Your task to perform on an android device: install app "Google Home" Image 0: 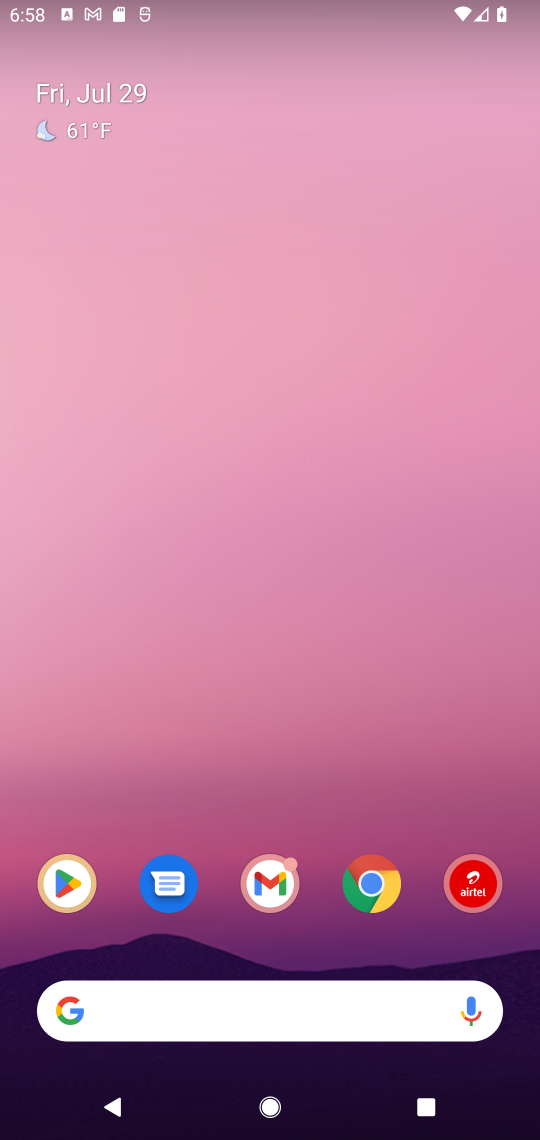
Step 0: click (62, 890)
Your task to perform on an android device: install app "Google Home" Image 1: 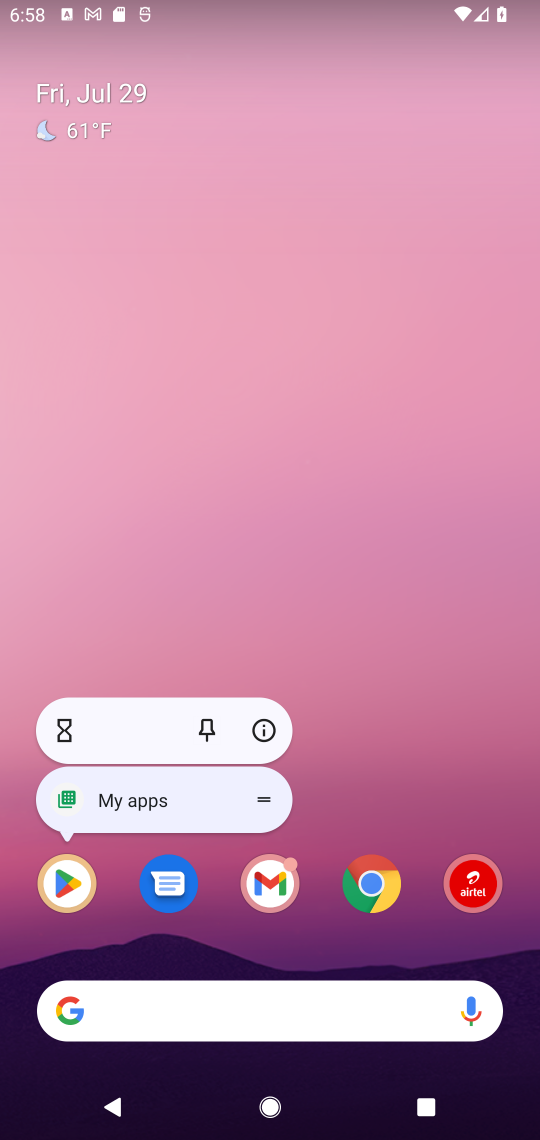
Step 1: click (80, 896)
Your task to perform on an android device: install app "Google Home" Image 2: 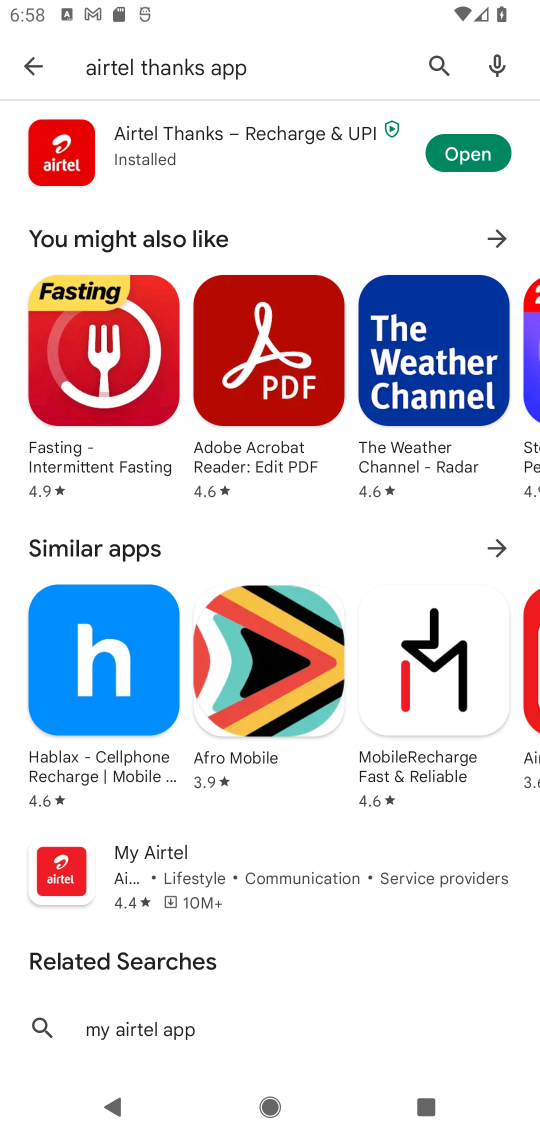
Step 2: click (430, 67)
Your task to perform on an android device: install app "Google Home" Image 3: 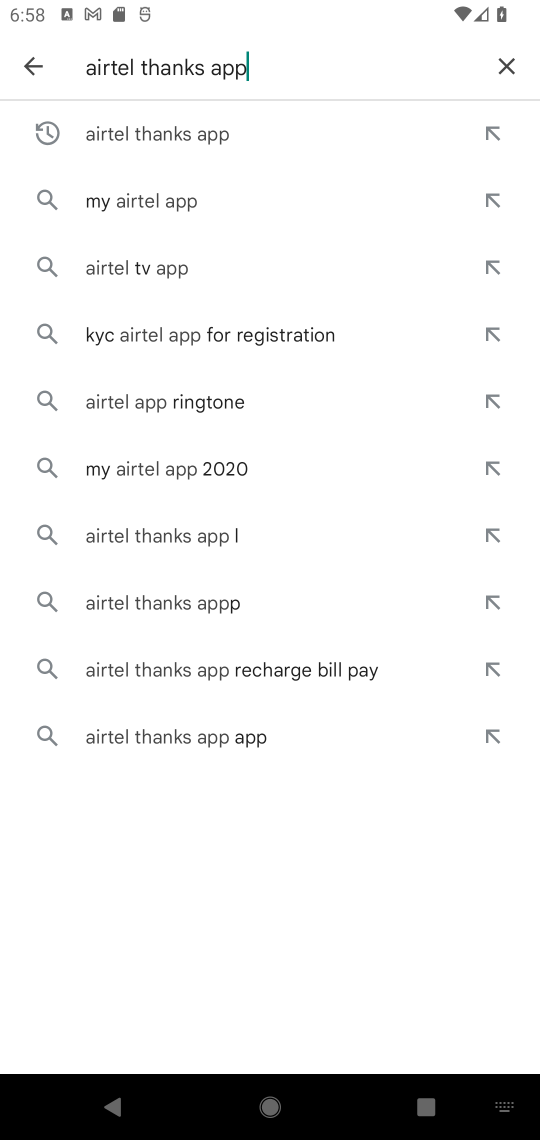
Step 3: click (494, 59)
Your task to perform on an android device: install app "Google Home" Image 4: 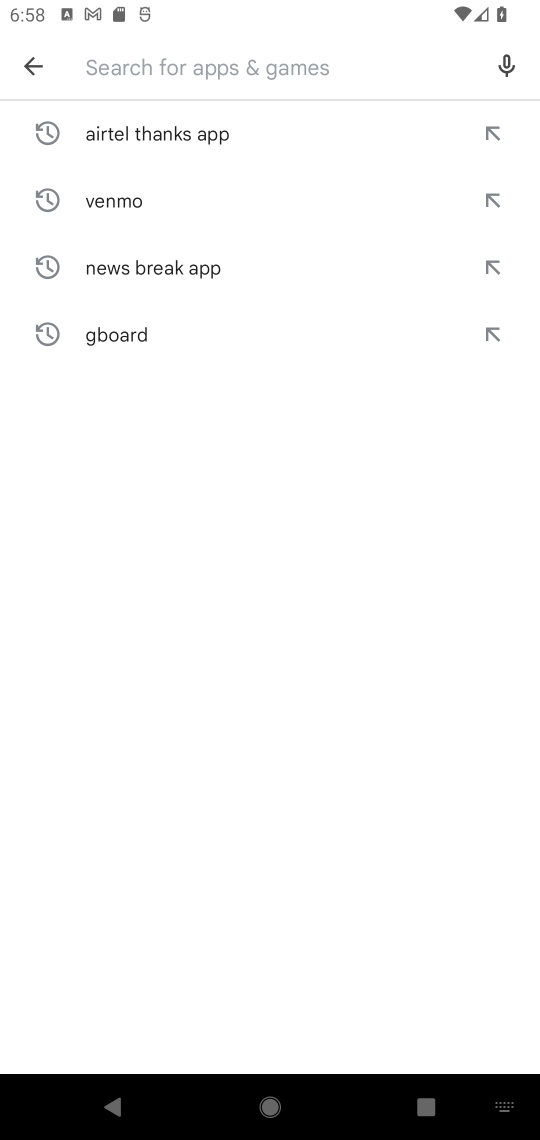
Step 4: click (241, 58)
Your task to perform on an android device: install app "Google Home" Image 5: 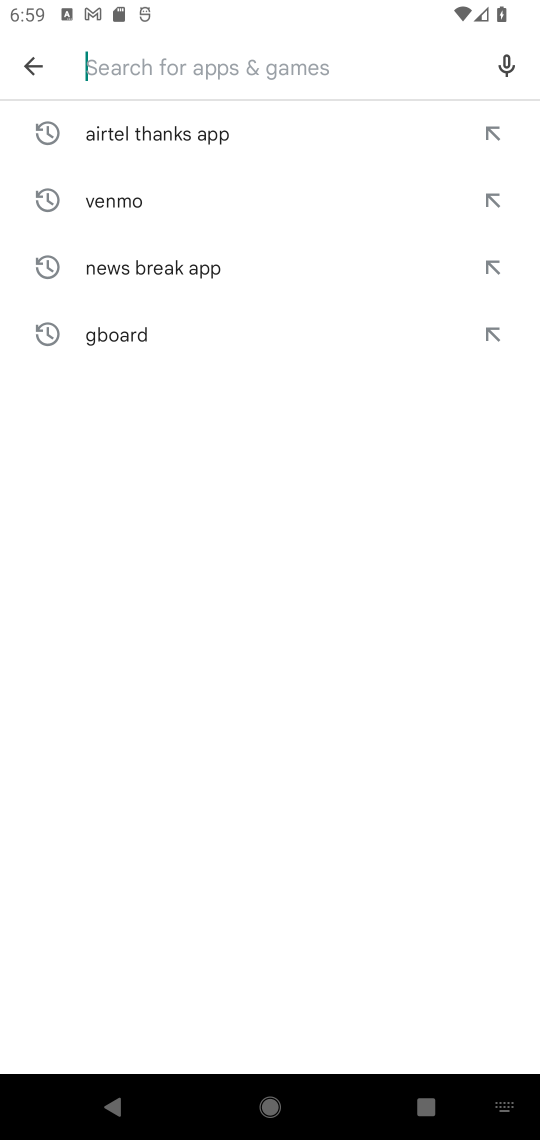
Step 5: type "google home"
Your task to perform on an android device: install app "Google Home" Image 6: 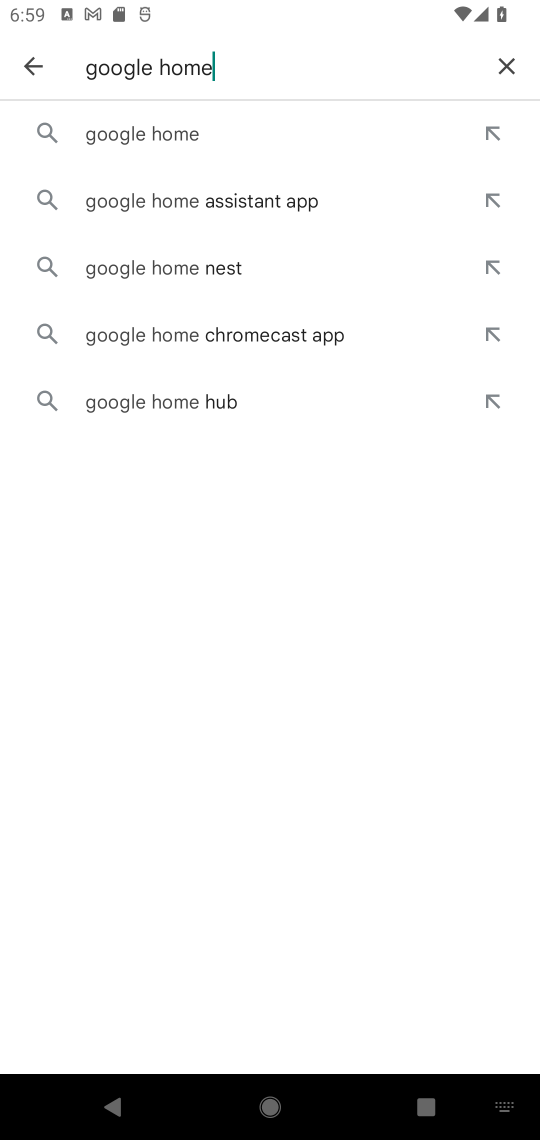
Step 6: click (158, 132)
Your task to perform on an android device: install app "Google Home" Image 7: 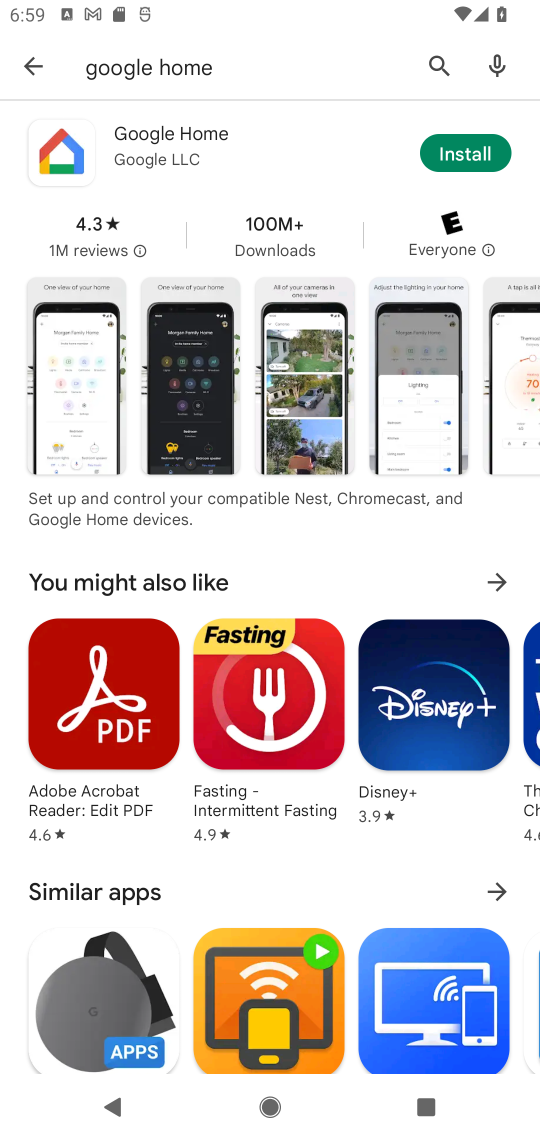
Step 7: click (441, 158)
Your task to perform on an android device: install app "Google Home" Image 8: 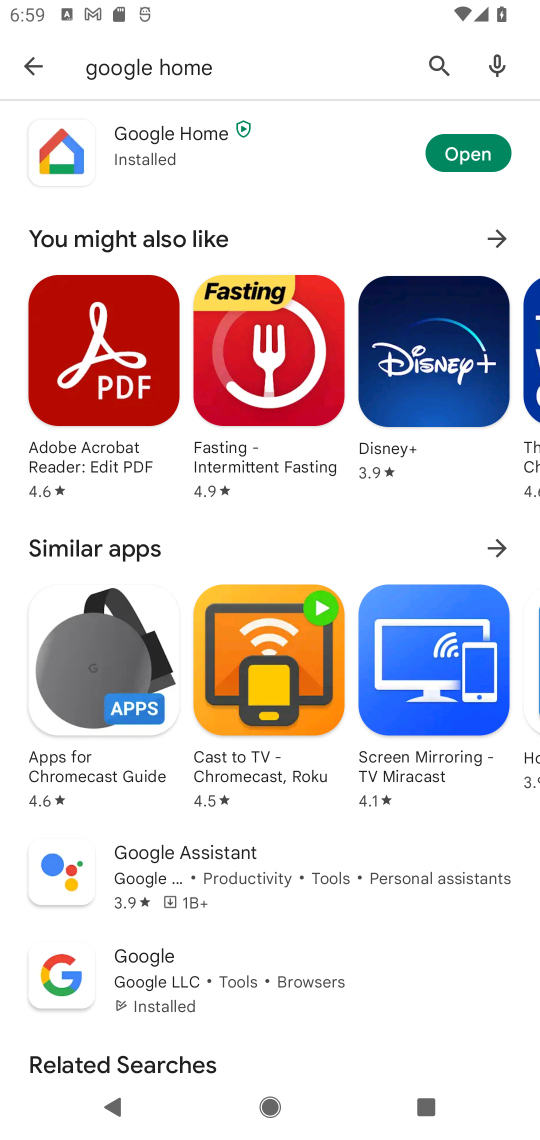
Step 8: click (457, 146)
Your task to perform on an android device: install app "Google Home" Image 9: 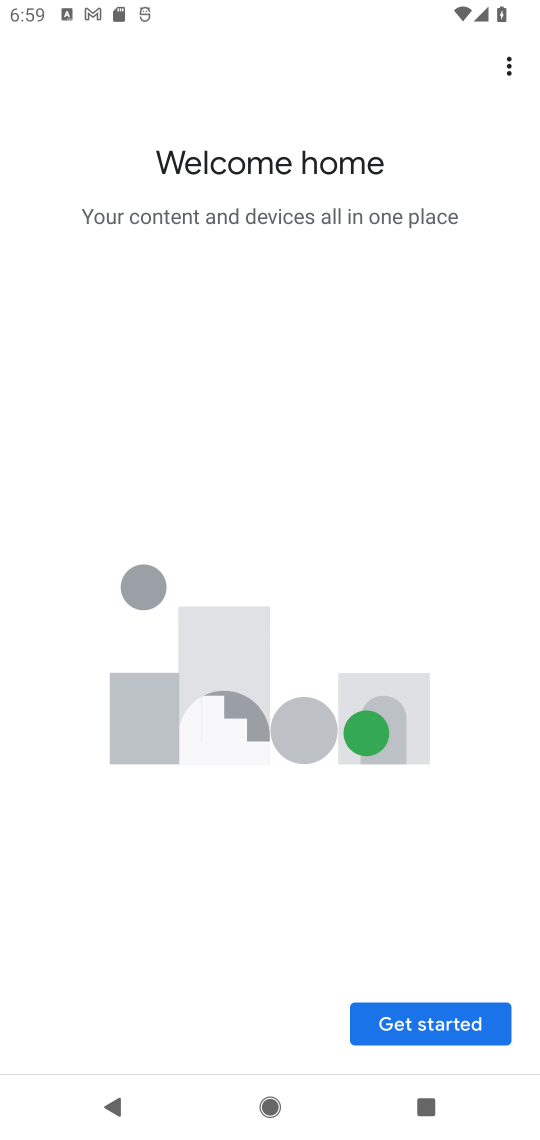
Step 9: task complete